Your task to perform on an android device: turn on the 24-hour format for clock Image 0: 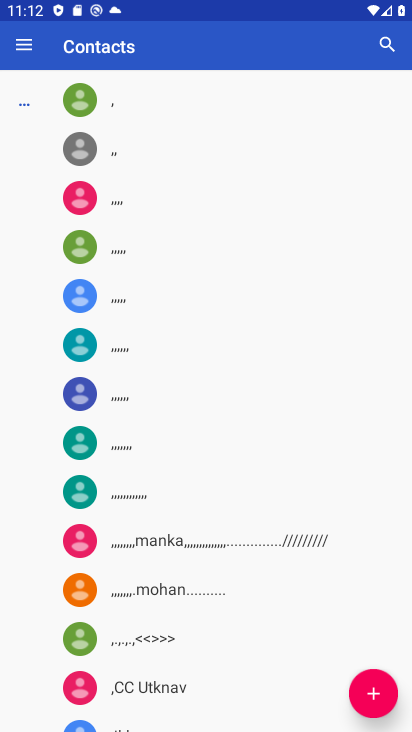
Step 0: press home button
Your task to perform on an android device: turn on the 24-hour format for clock Image 1: 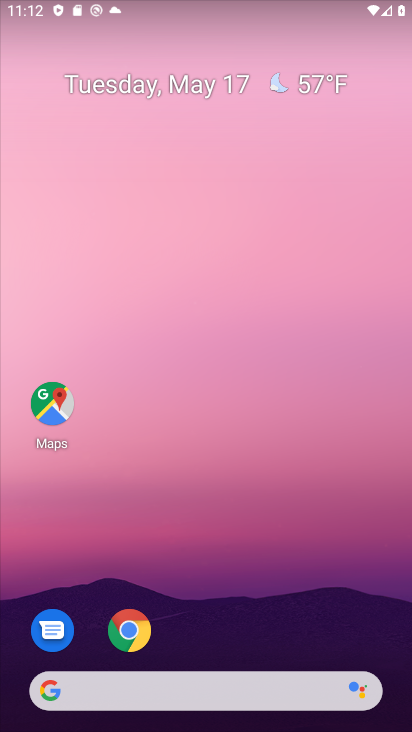
Step 1: drag from (253, 660) to (318, 235)
Your task to perform on an android device: turn on the 24-hour format for clock Image 2: 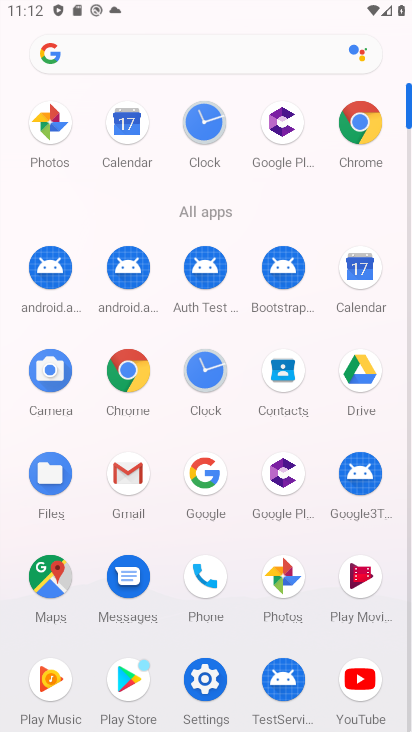
Step 2: click (200, 369)
Your task to perform on an android device: turn on the 24-hour format for clock Image 3: 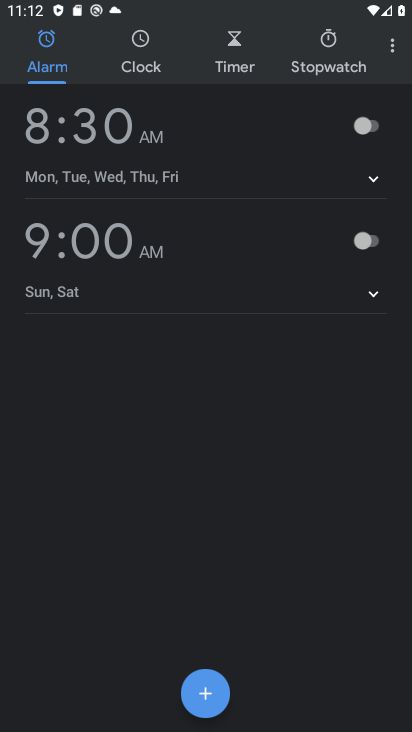
Step 3: click (385, 38)
Your task to perform on an android device: turn on the 24-hour format for clock Image 4: 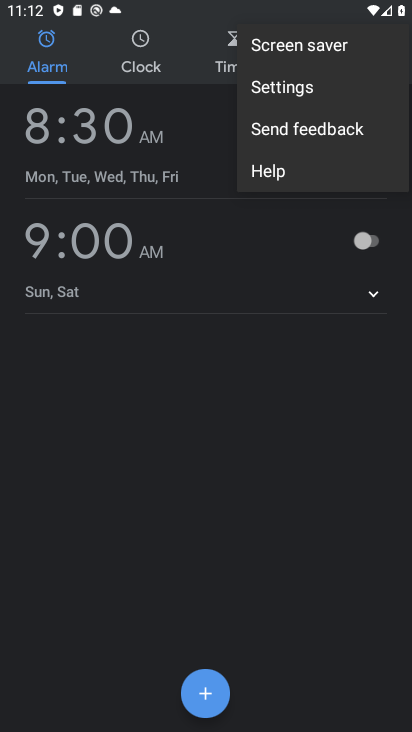
Step 4: click (348, 76)
Your task to perform on an android device: turn on the 24-hour format for clock Image 5: 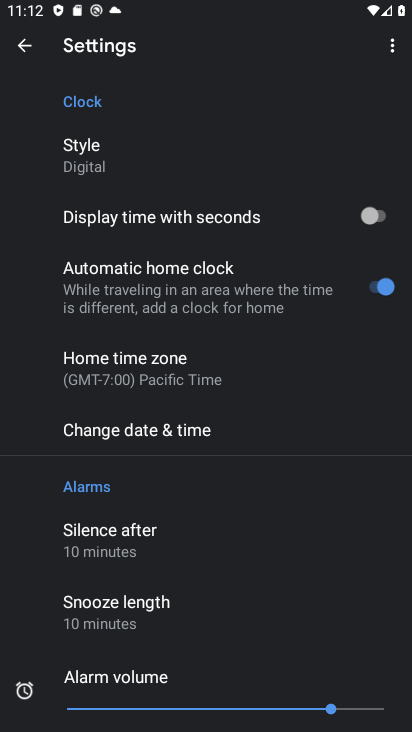
Step 5: click (217, 440)
Your task to perform on an android device: turn on the 24-hour format for clock Image 6: 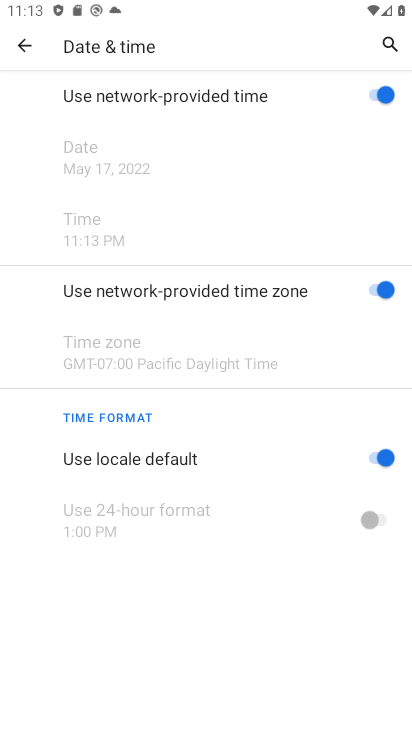
Step 6: drag from (165, 607) to (285, 205)
Your task to perform on an android device: turn on the 24-hour format for clock Image 7: 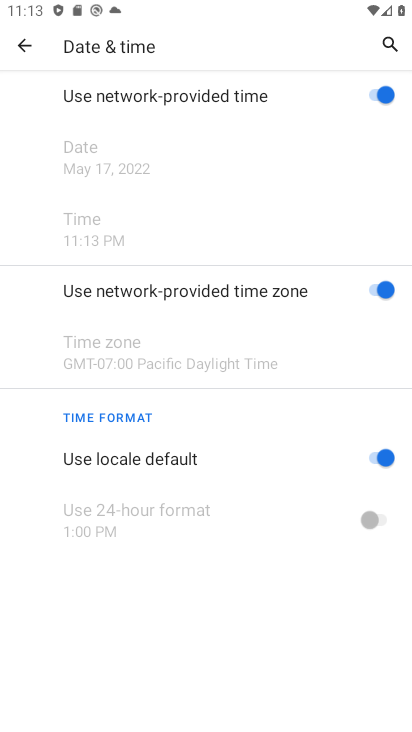
Step 7: click (373, 461)
Your task to perform on an android device: turn on the 24-hour format for clock Image 8: 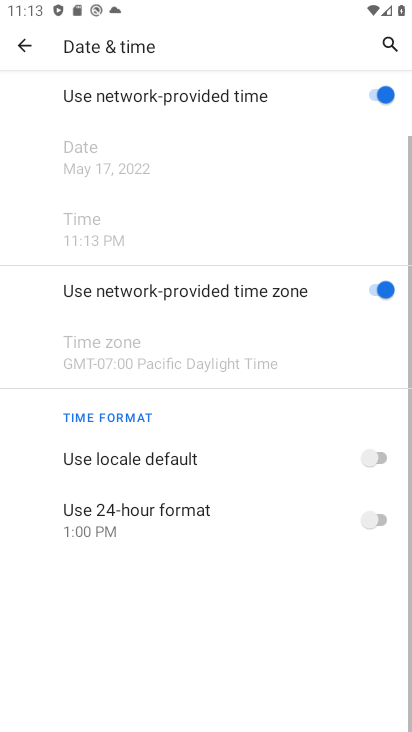
Step 8: click (392, 520)
Your task to perform on an android device: turn on the 24-hour format for clock Image 9: 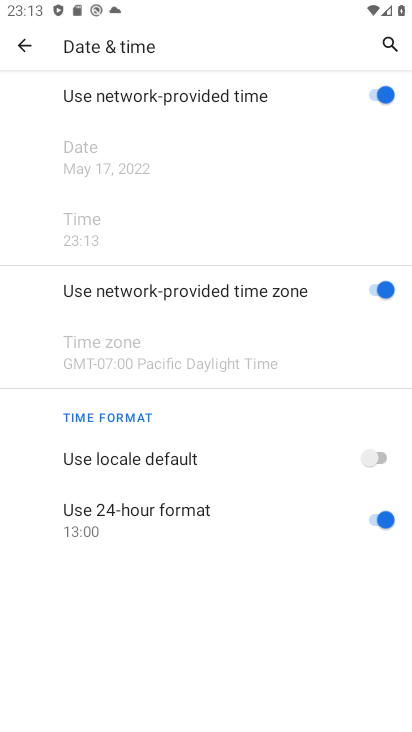
Step 9: task complete